Your task to perform on an android device: open chrome and create a bookmark for the current page Image 0: 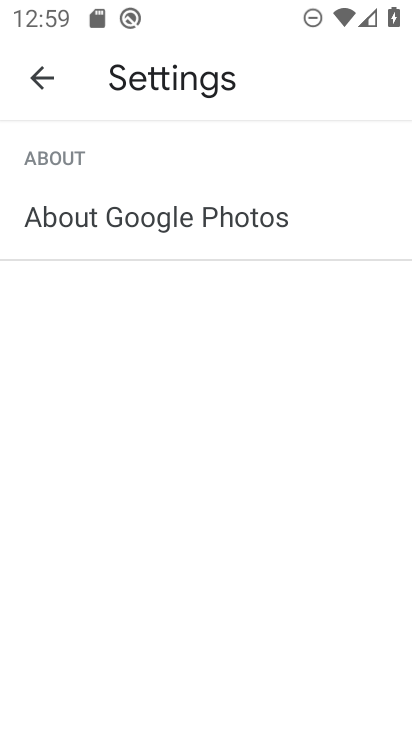
Step 0: press home button
Your task to perform on an android device: open chrome and create a bookmark for the current page Image 1: 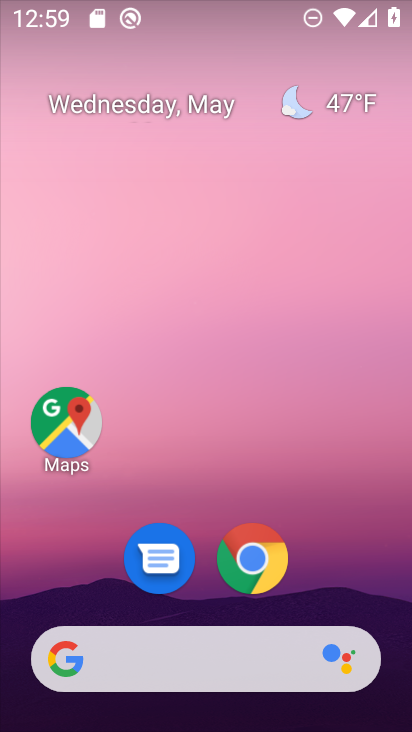
Step 1: click (259, 577)
Your task to perform on an android device: open chrome and create a bookmark for the current page Image 2: 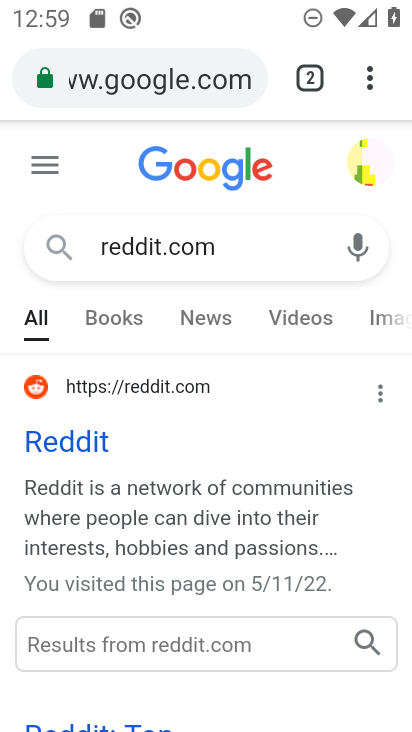
Step 2: click (373, 86)
Your task to perform on an android device: open chrome and create a bookmark for the current page Image 3: 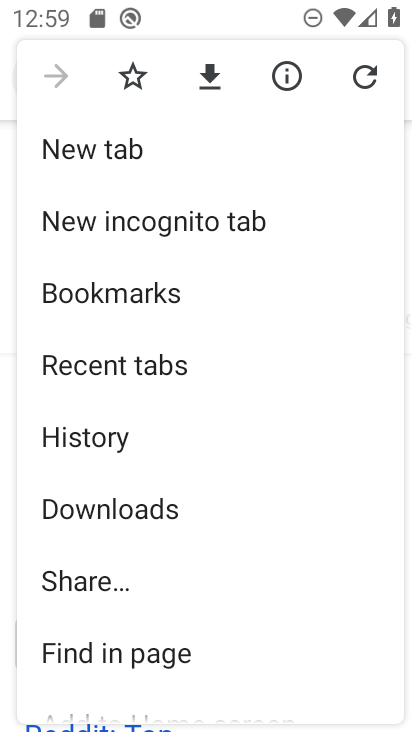
Step 3: click (132, 55)
Your task to perform on an android device: open chrome and create a bookmark for the current page Image 4: 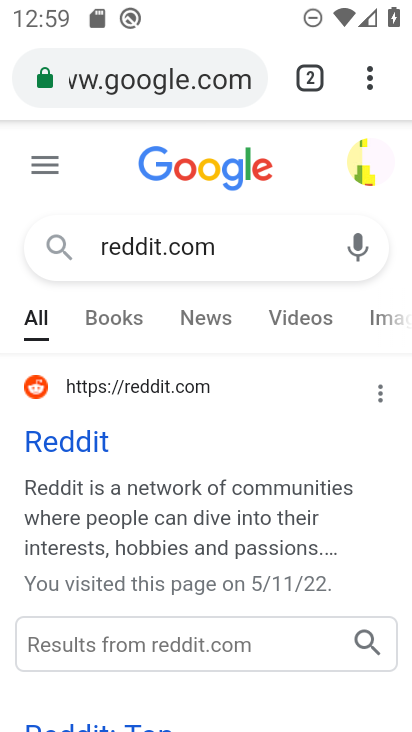
Step 4: task complete